Your task to perform on an android device: Set the phone to "Do not disturb". Image 0: 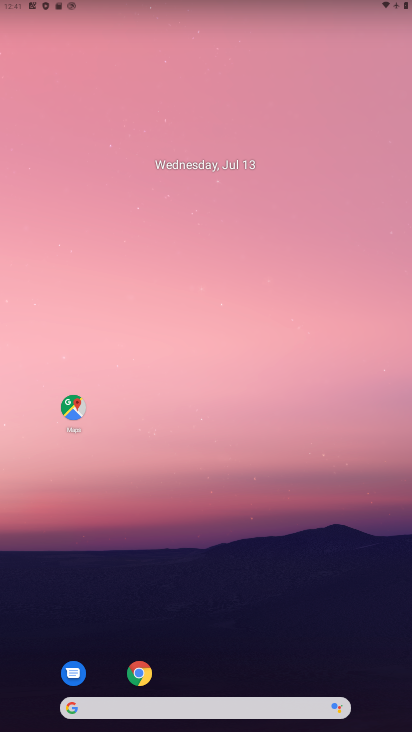
Step 0: drag from (291, 654) to (275, 82)
Your task to perform on an android device: Set the phone to "Do not disturb". Image 1: 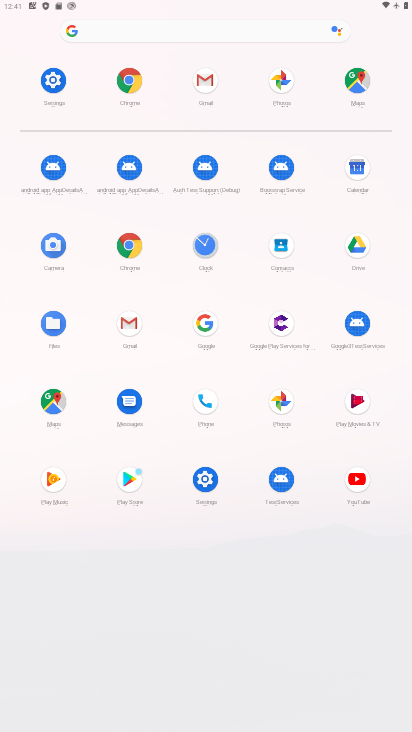
Step 1: click (67, 94)
Your task to perform on an android device: Set the phone to "Do not disturb". Image 2: 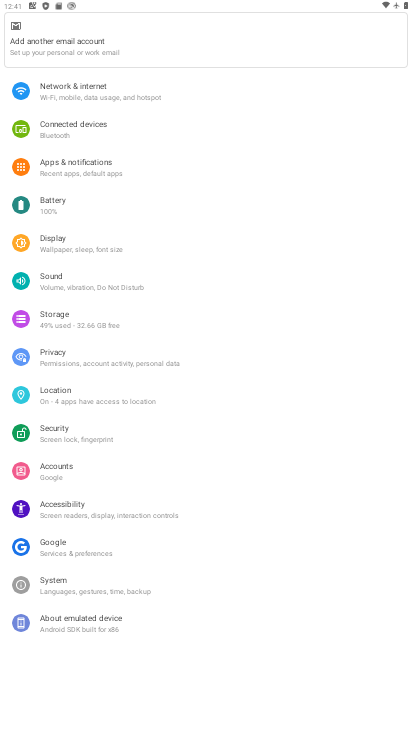
Step 2: click (112, 279)
Your task to perform on an android device: Set the phone to "Do not disturb". Image 3: 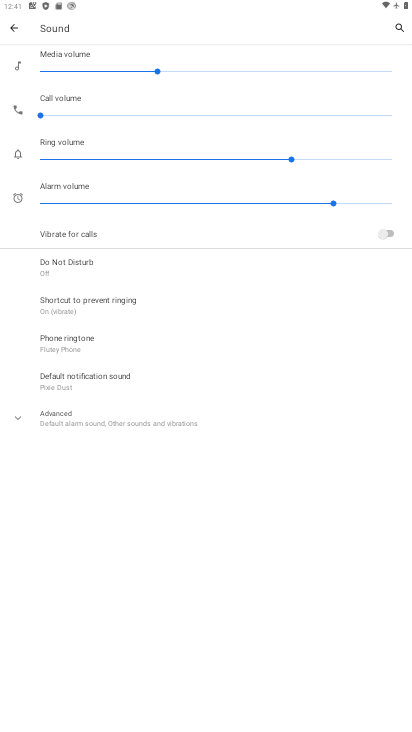
Step 3: click (152, 265)
Your task to perform on an android device: Set the phone to "Do not disturb". Image 4: 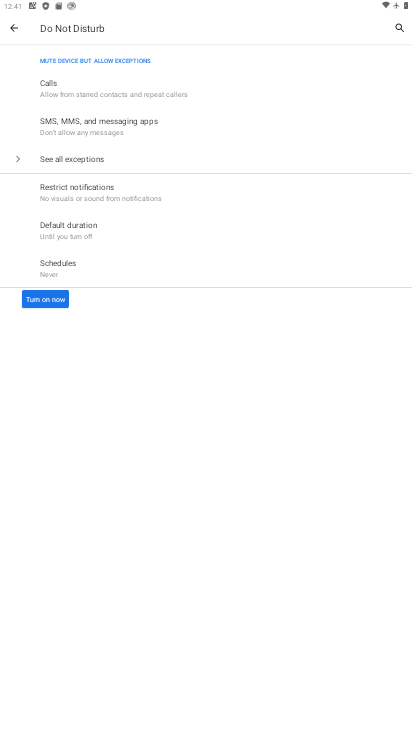
Step 4: click (51, 294)
Your task to perform on an android device: Set the phone to "Do not disturb". Image 5: 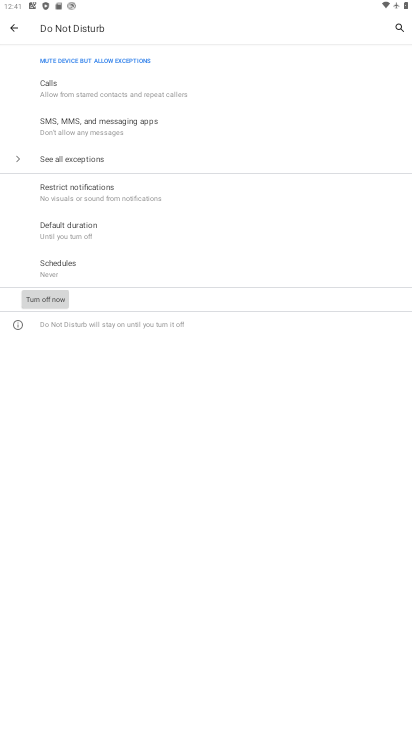
Step 5: task complete